Your task to perform on an android device: Toggle the flashlight Image 0: 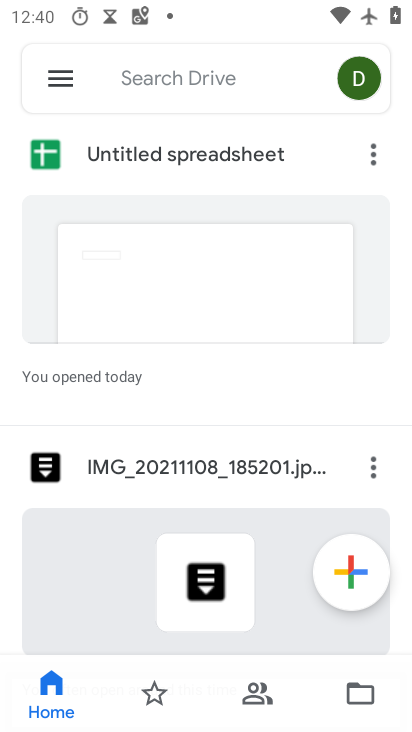
Step 0: press home button
Your task to perform on an android device: Toggle the flashlight Image 1: 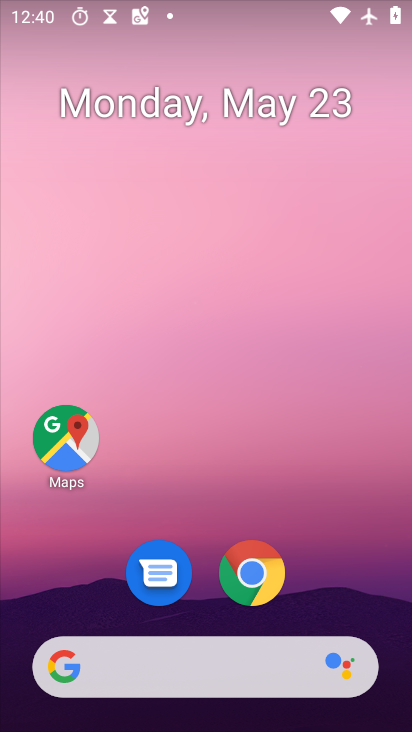
Step 1: task complete